Your task to perform on an android device: Open maps Image 0: 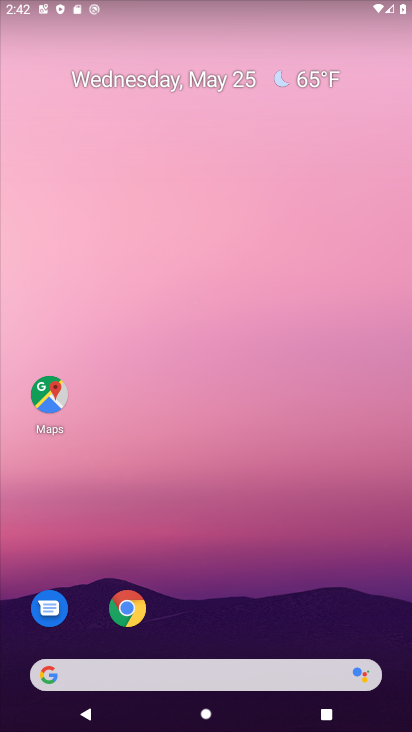
Step 0: click (50, 396)
Your task to perform on an android device: Open maps Image 1: 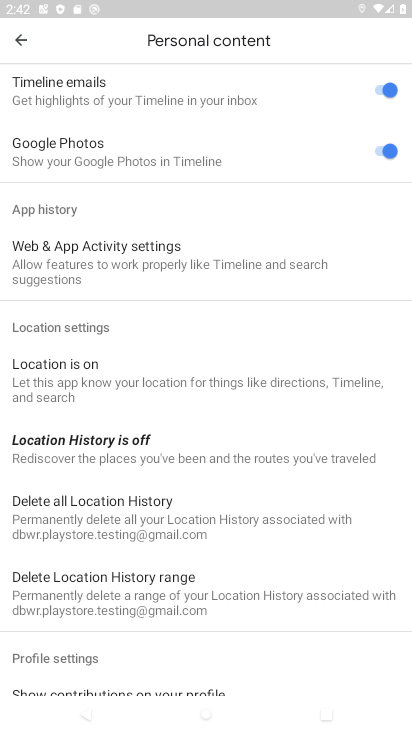
Step 1: click (25, 38)
Your task to perform on an android device: Open maps Image 2: 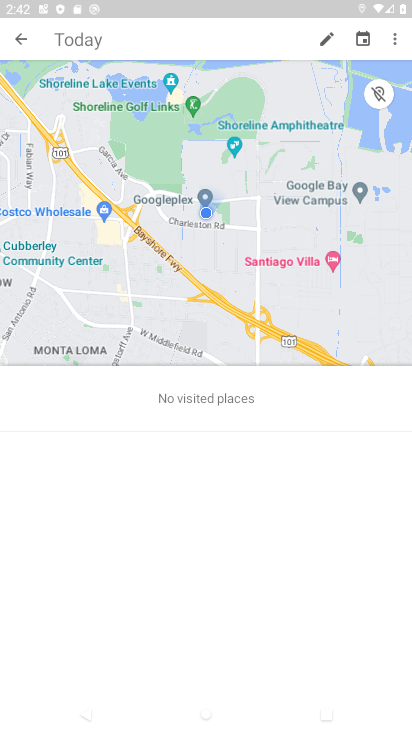
Step 2: click (15, 34)
Your task to perform on an android device: Open maps Image 3: 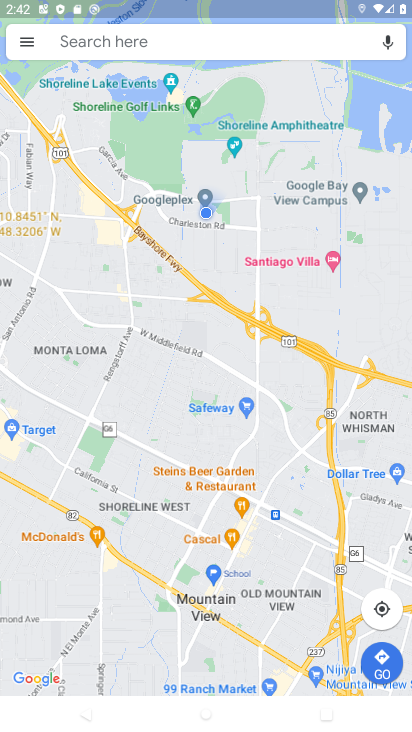
Step 3: task complete